Your task to perform on an android device: Go to Google Image 0: 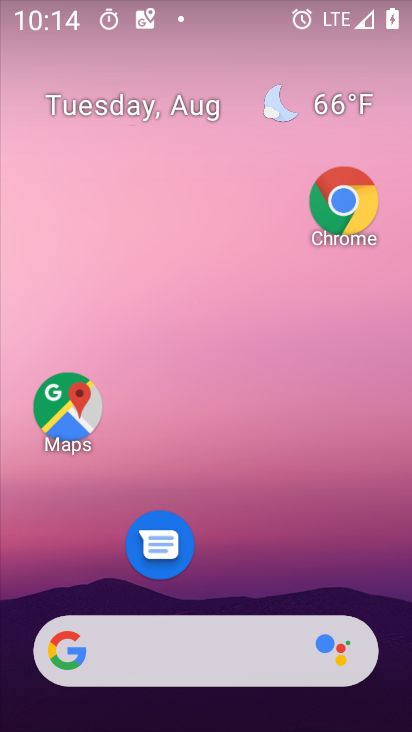
Step 0: drag from (159, 647) to (139, 71)
Your task to perform on an android device: Go to Google Image 1: 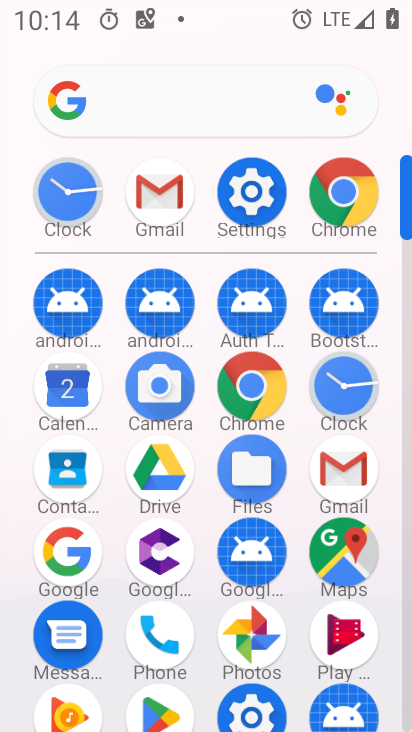
Step 1: drag from (209, 556) to (195, 142)
Your task to perform on an android device: Go to Google Image 2: 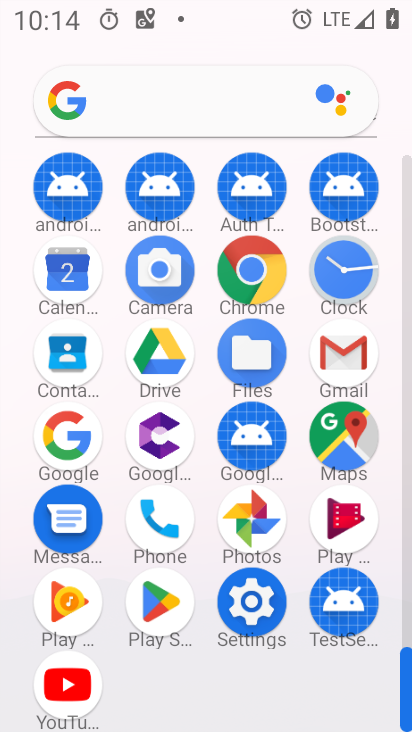
Step 2: click (81, 448)
Your task to perform on an android device: Go to Google Image 3: 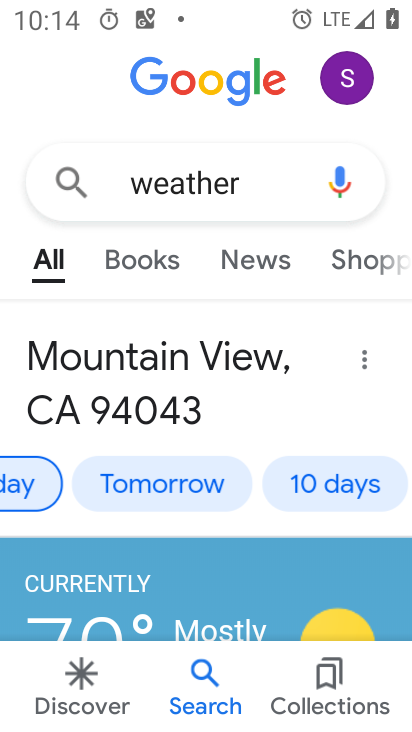
Step 3: task complete